Your task to perform on an android device: Open Amazon Image 0: 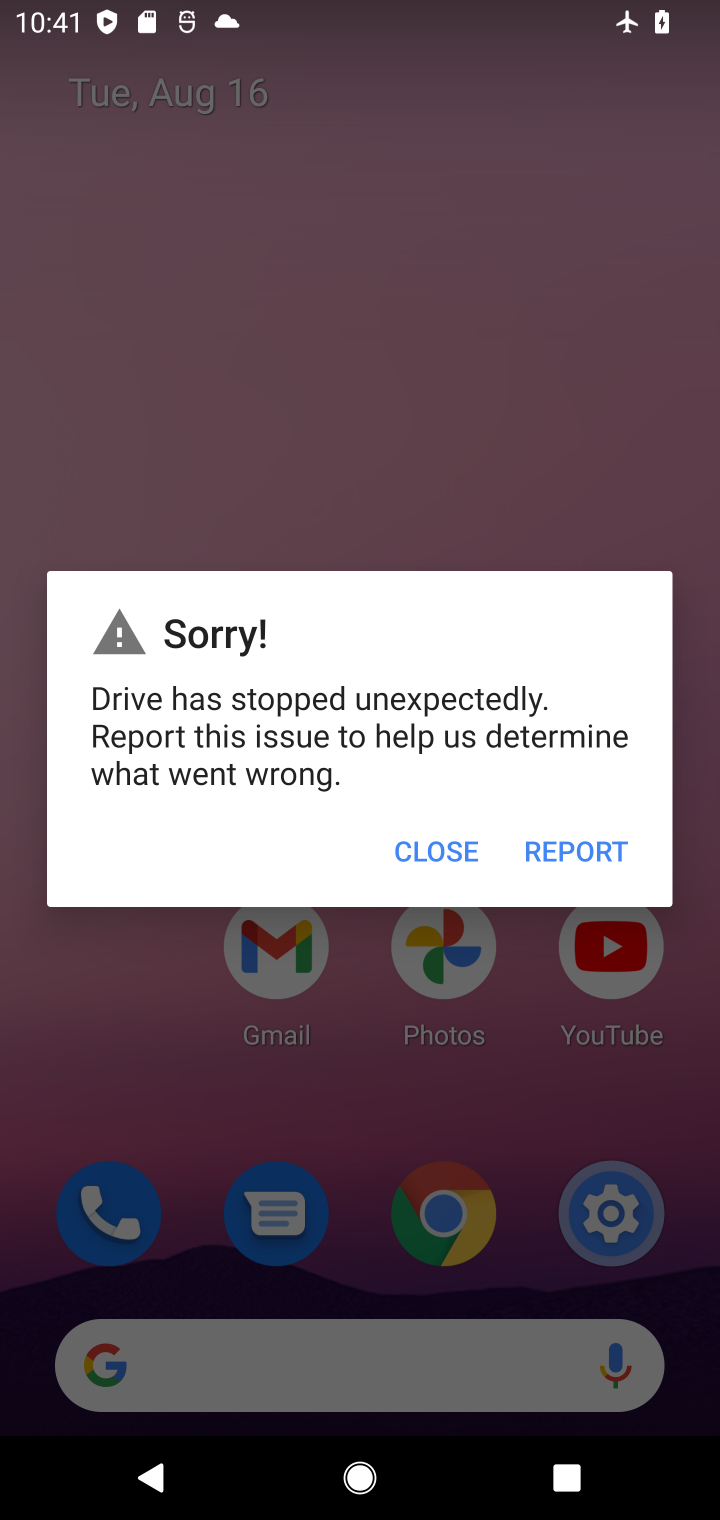
Step 0: click (529, 533)
Your task to perform on an android device: Open Amazon Image 1: 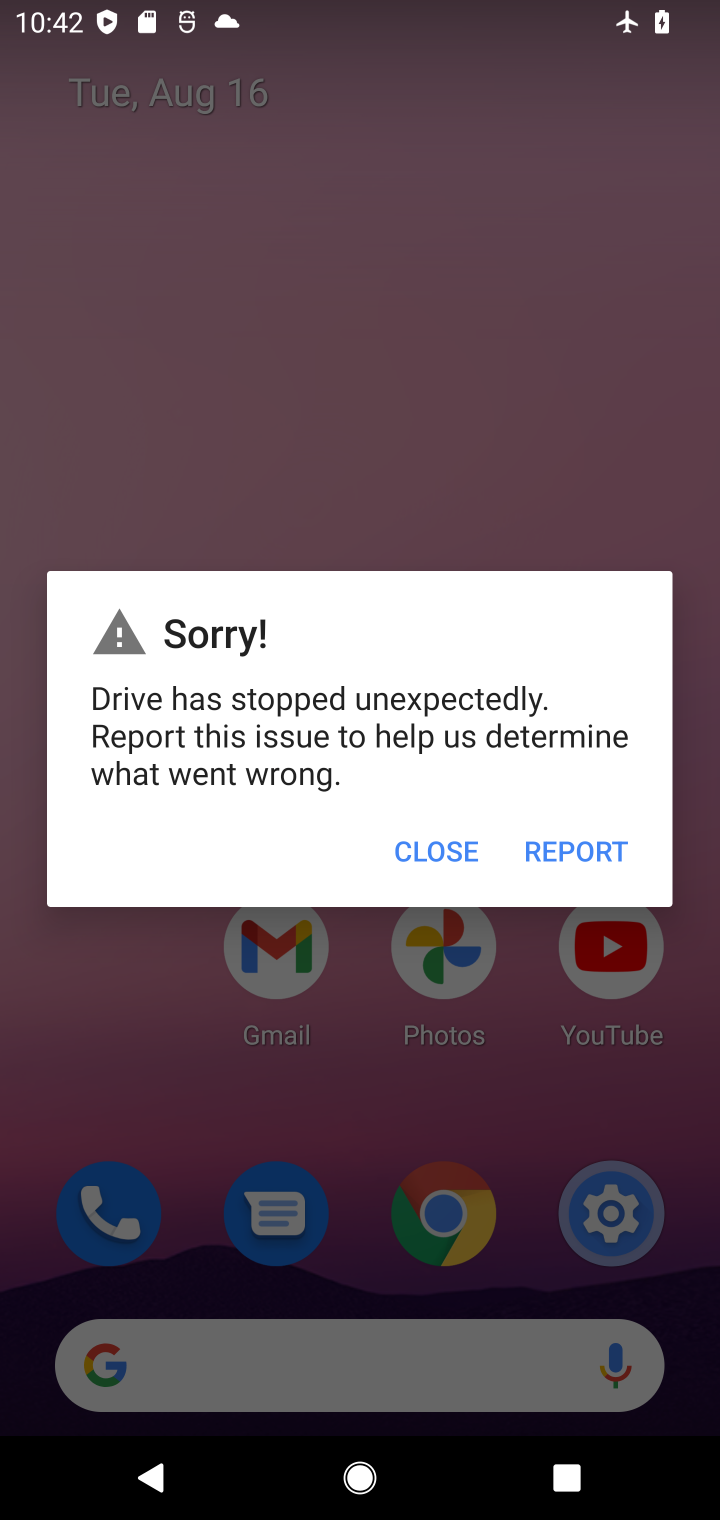
Step 1: press home button
Your task to perform on an android device: Open Amazon Image 2: 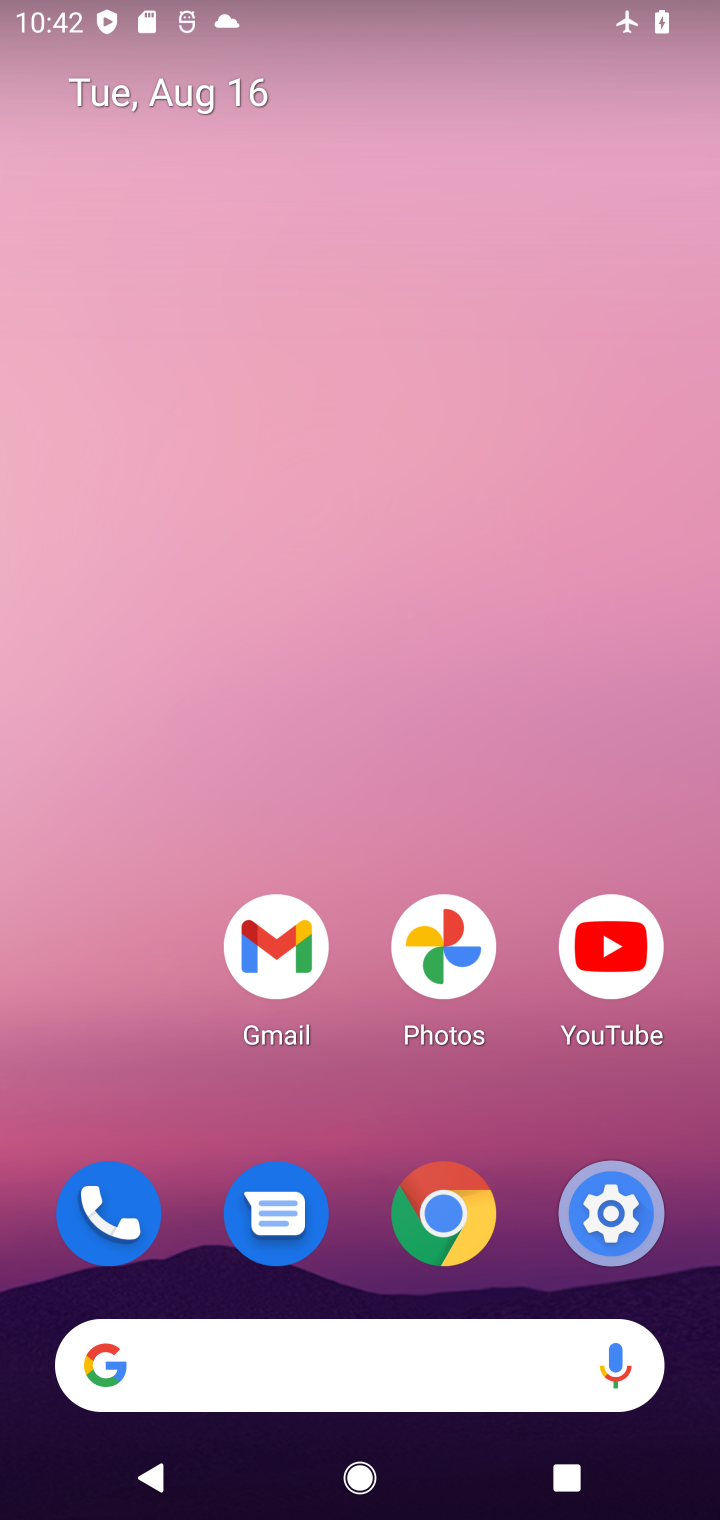
Step 2: click (429, 1206)
Your task to perform on an android device: Open Amazon Image 3: 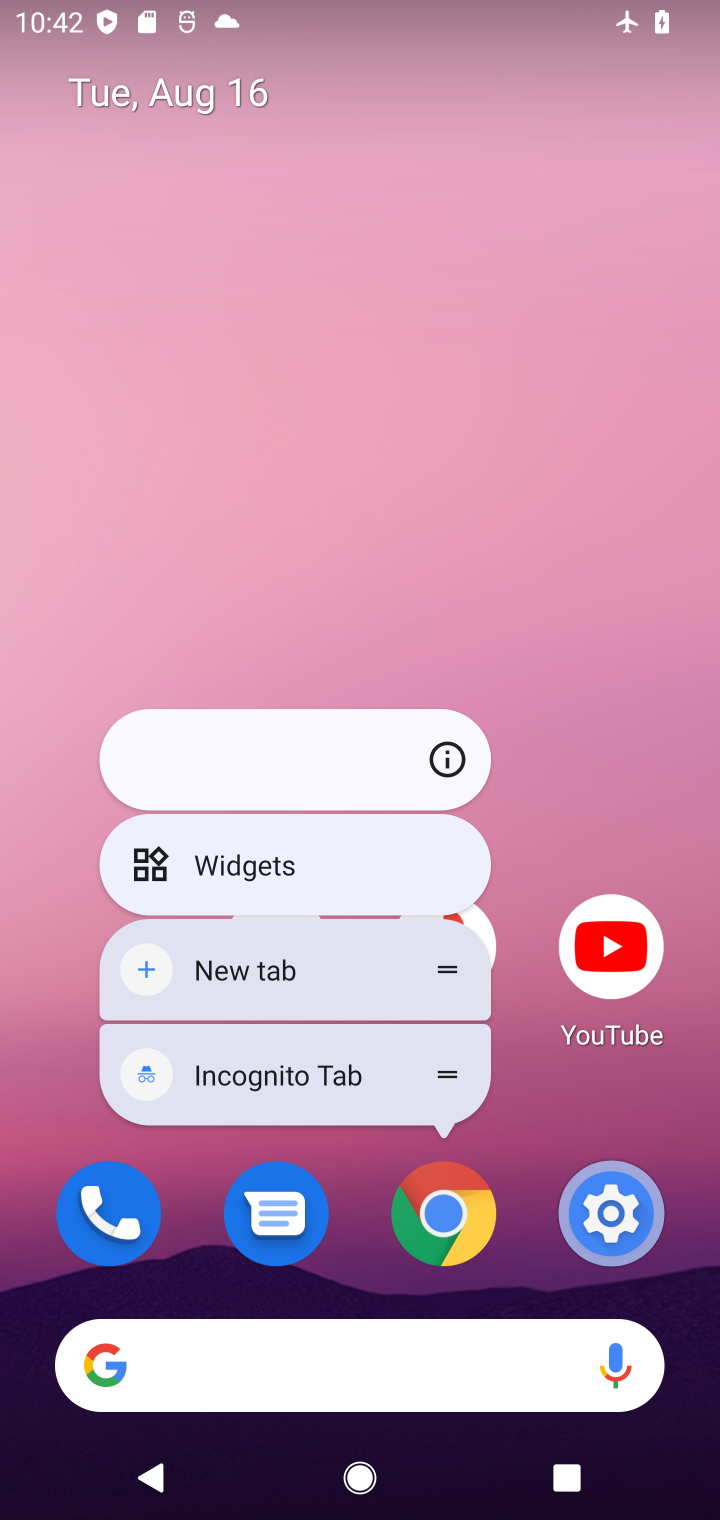
Step 3: click (425, 1206)
Your task to perform on an android device: Open Amazon Image 4: 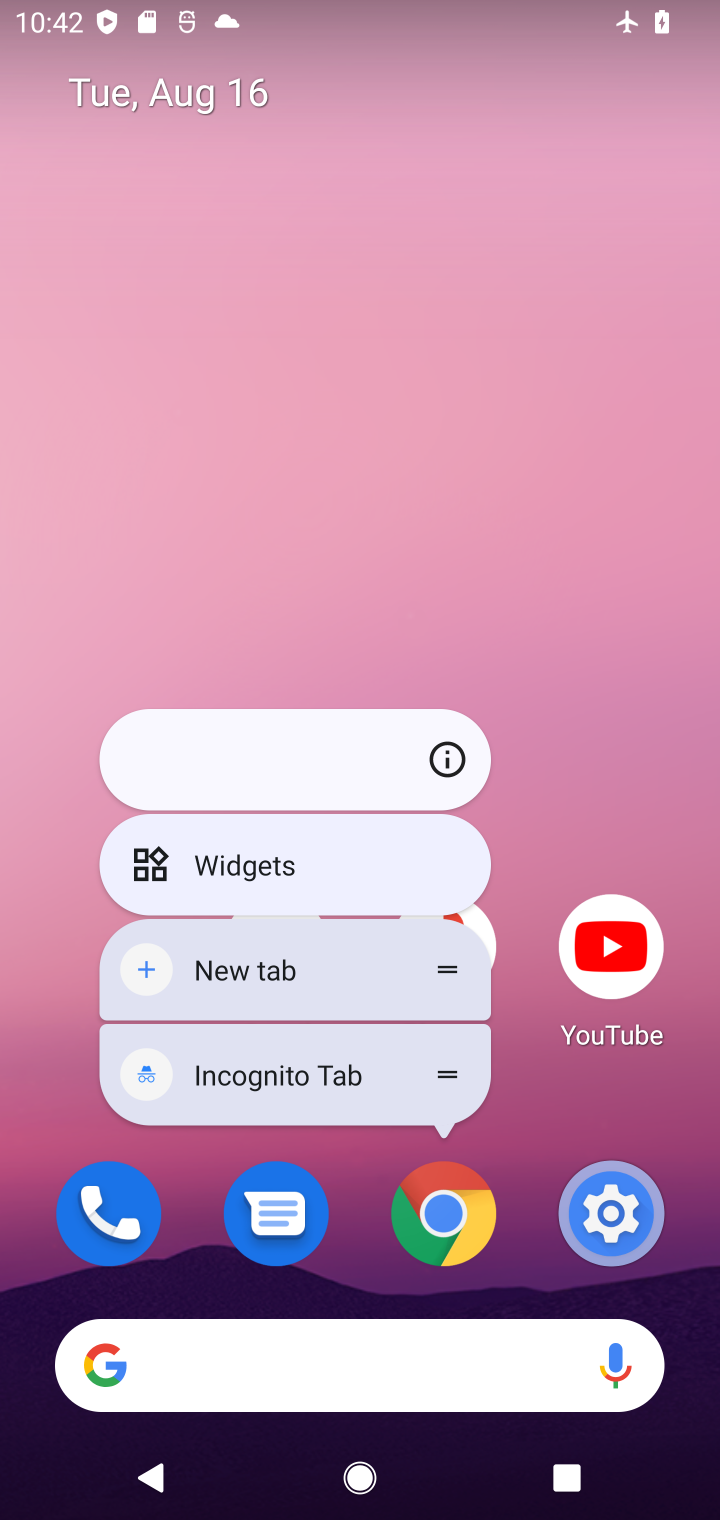
Step 4: click (436, 1206)
Your task to perform on an android device: Open Amazon Image 5: 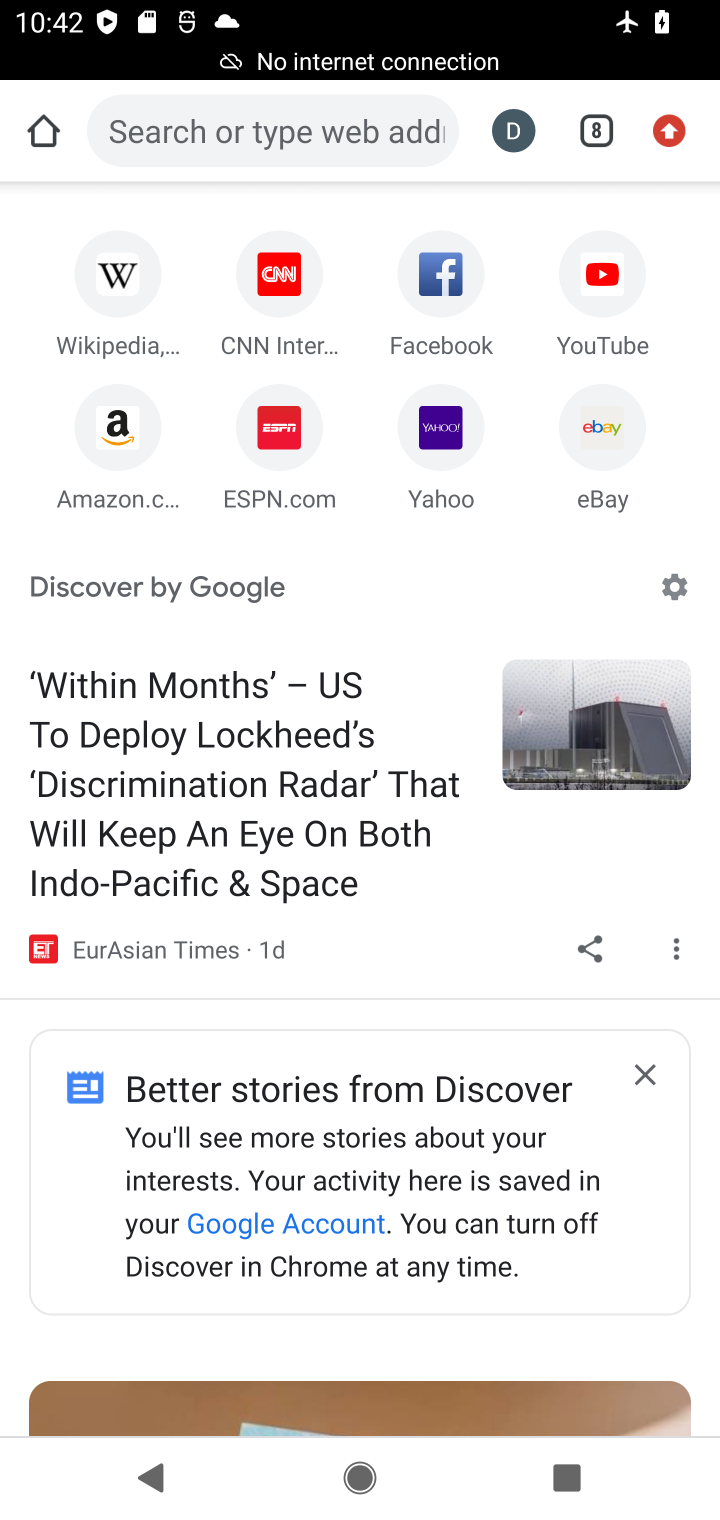
Step 5: click (98, 400)
Your task to perform on an android device: Open Amazon Image 6: 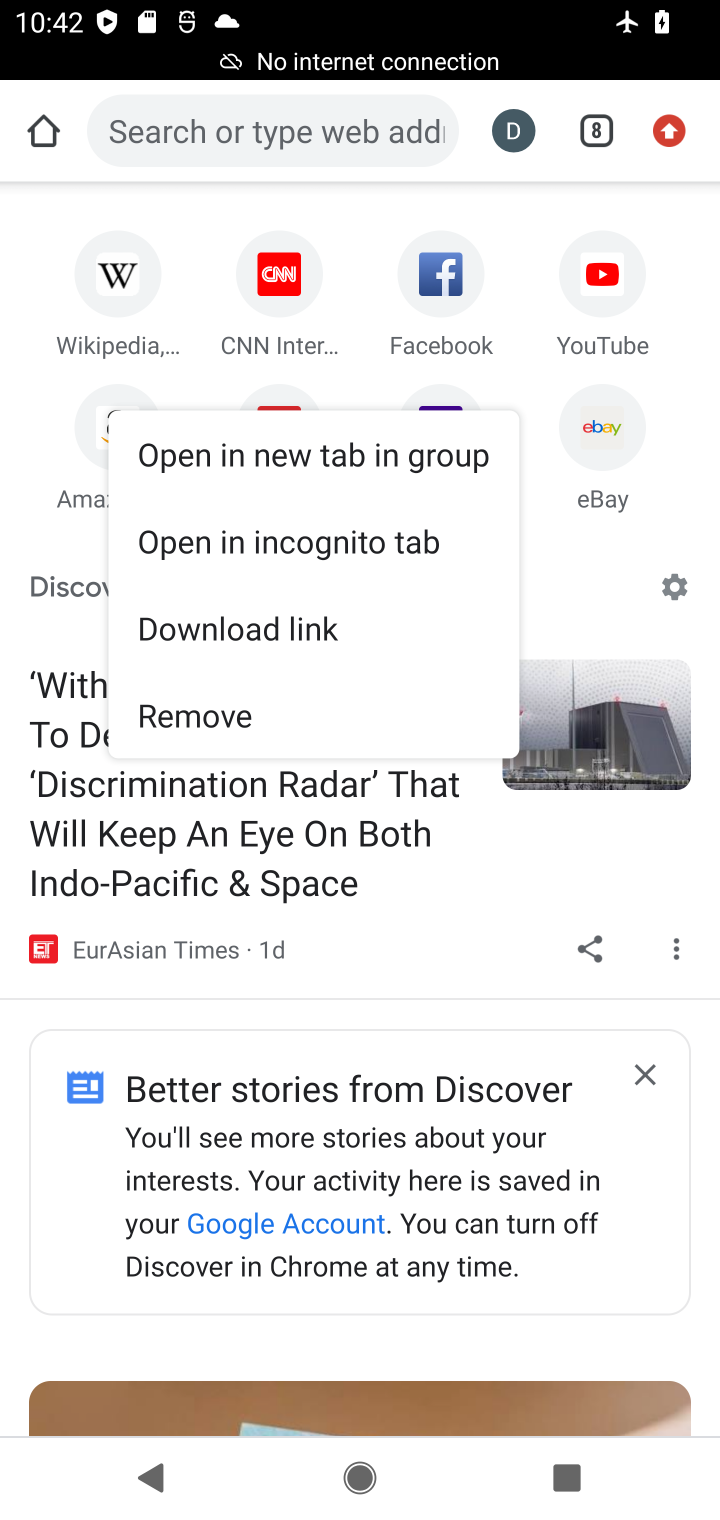
Step 6: click (93, 408)
Your task to perform on an android device: Open Amazon Image 7: 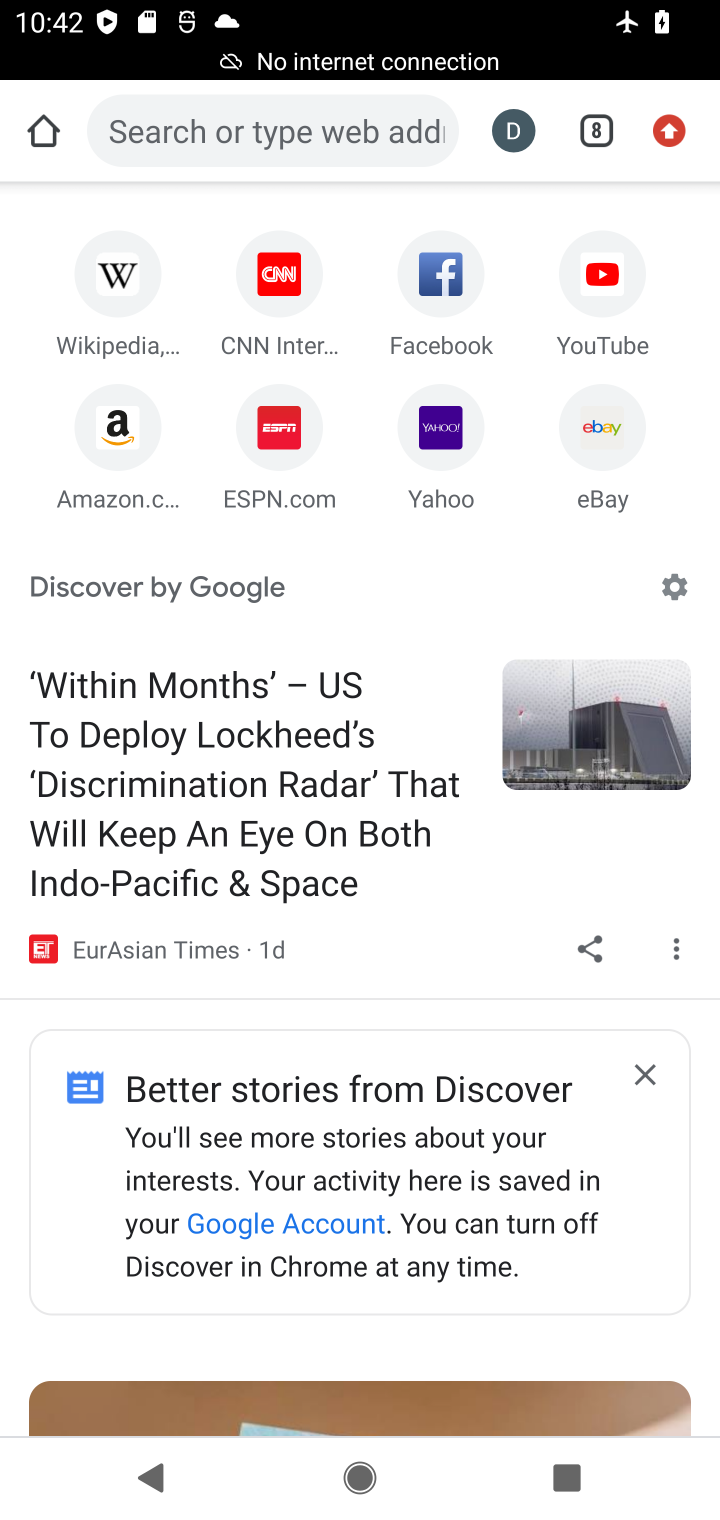
Step 7: click (93, 408)
Your task to perform on an android device: Open Amazon Image 8: 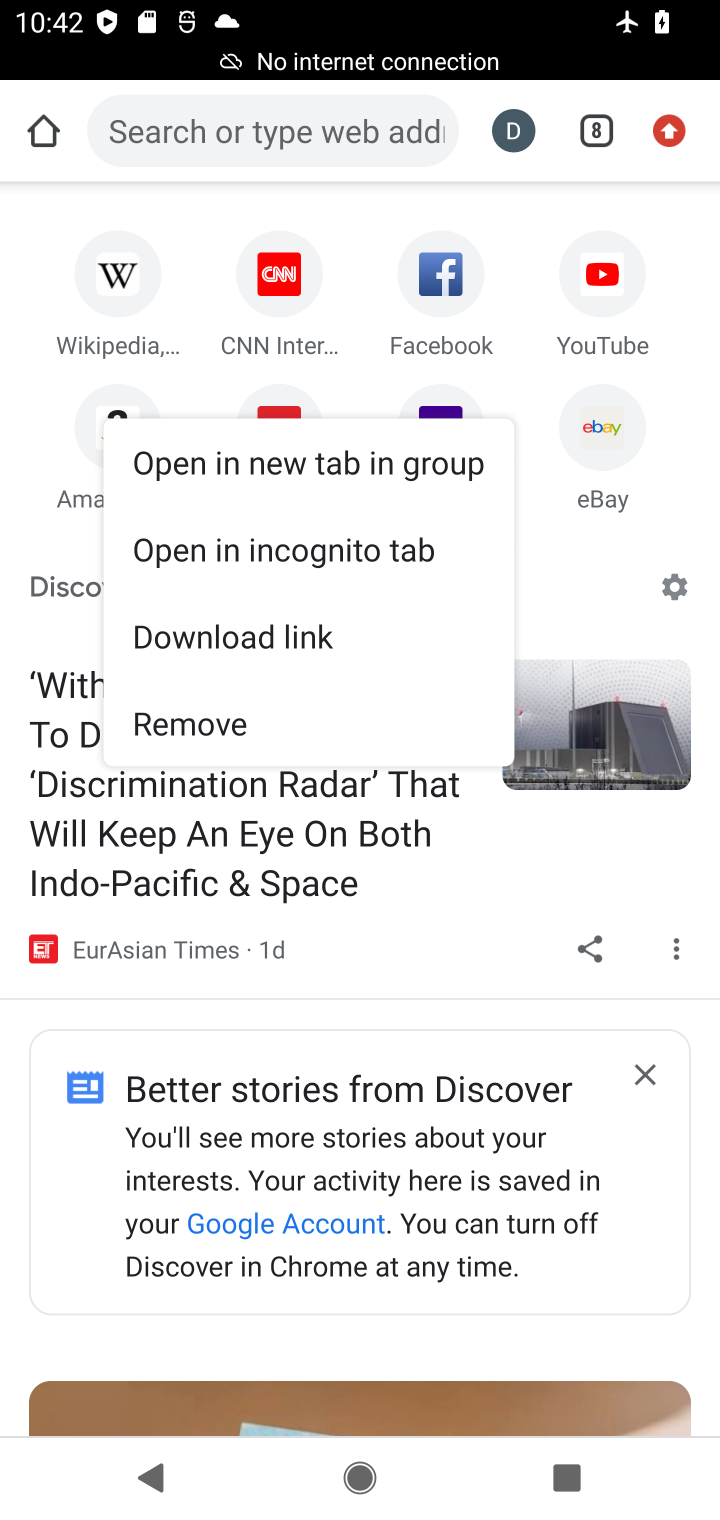
Step 8: task complete